Your task to perform on an android device: delete the emails in spam in the gmail app Image 0: 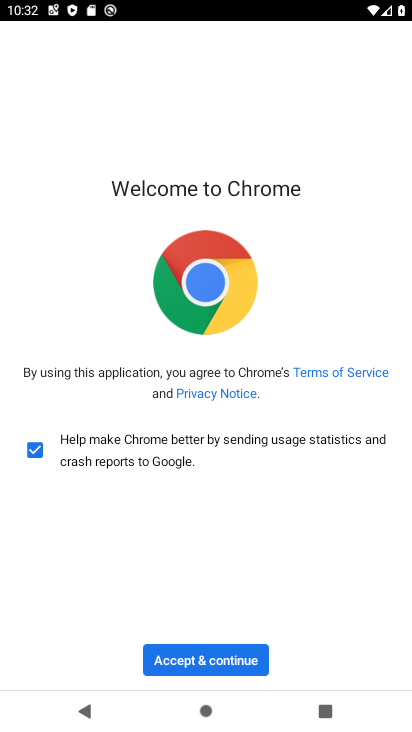
Step 0: press home button
Your task to perform on an android device: delete the emails in spam in the gmail app Image 1: 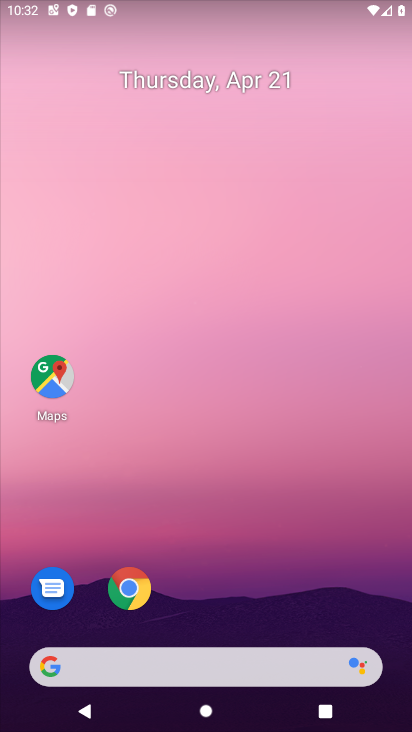
Step 1: drag from (224, 614) to (209, 55)
Your task to perform on an android device: delete the emails in spam in the gmail app Image 2: 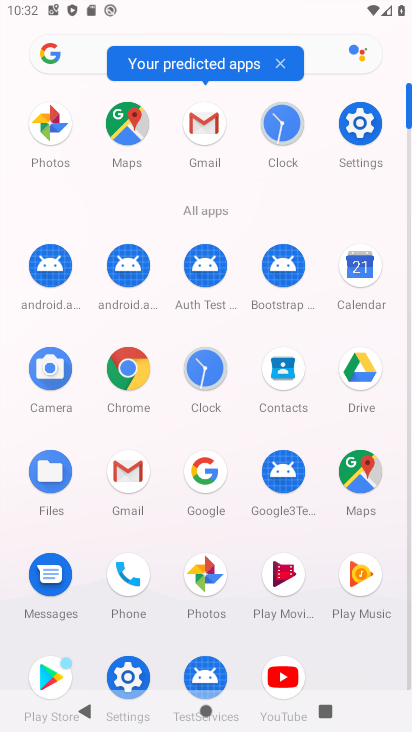
Step 2: click (198, 138)
Your task to perform on an android device: delete the emails in spam in the gmail app Image 3: 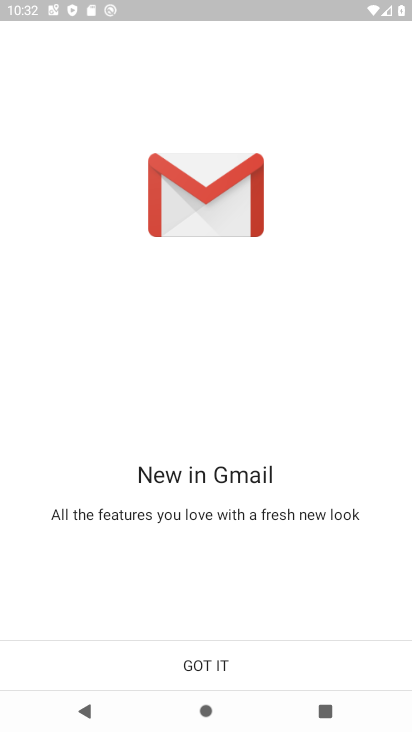
Step 3: click (220, 672)
Your task to perform on an android device: delete the emails in spam in the gmail app Image 4: 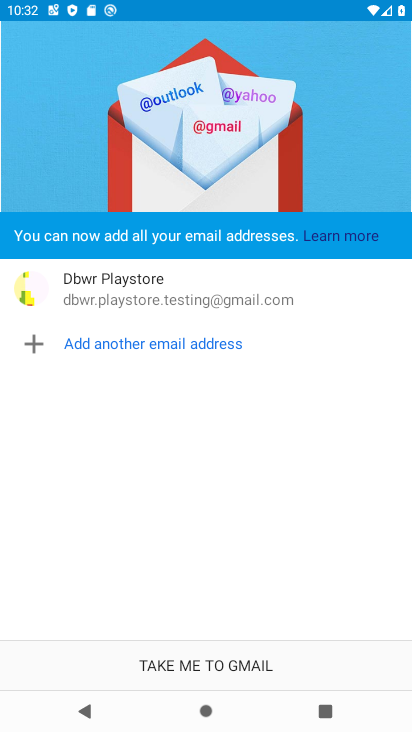
Step 4: click (223, 660)
Your task to perform on an android device: delete the emails in spam in the gmail app Image 5: 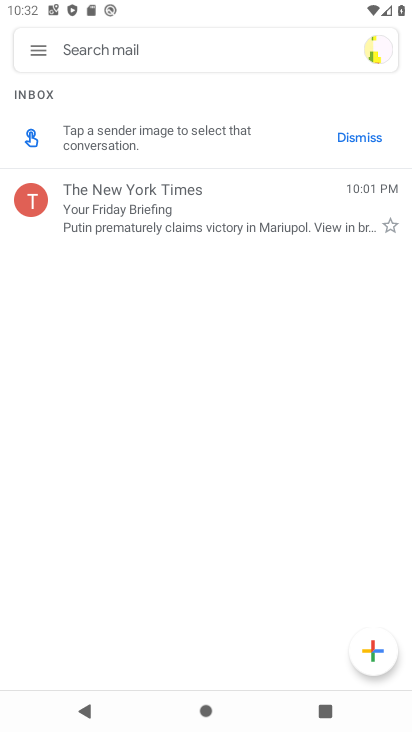
Step 5: click (183, 208)
Your task to perform on an android device: delete the emails in spam in the gmail app Image 6: 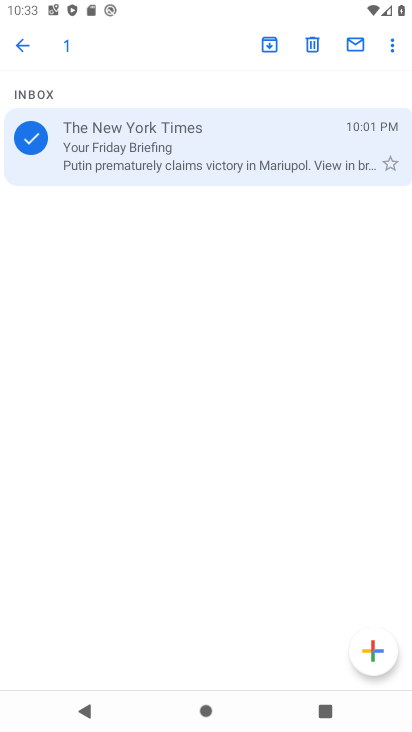
Step 6: click (312, 44)
Your task to perform on an android device: delete the emails in spam in the gmail app Image 7: 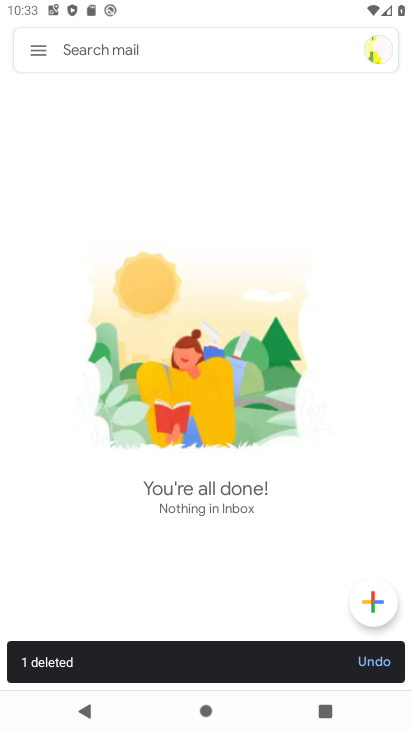
Step 7: task complete